Your task to perform on an android device: Go to sound settings Image 0: 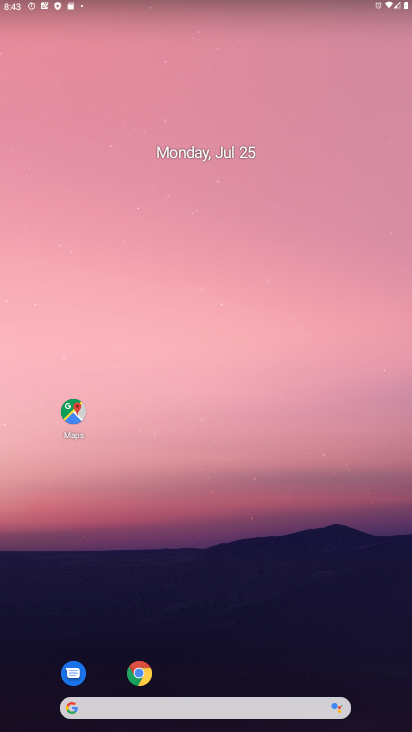
Step 0: drag from (326, 662) to (173, 24)
Your task to perform on an android device: Go to sound settings Image 1: 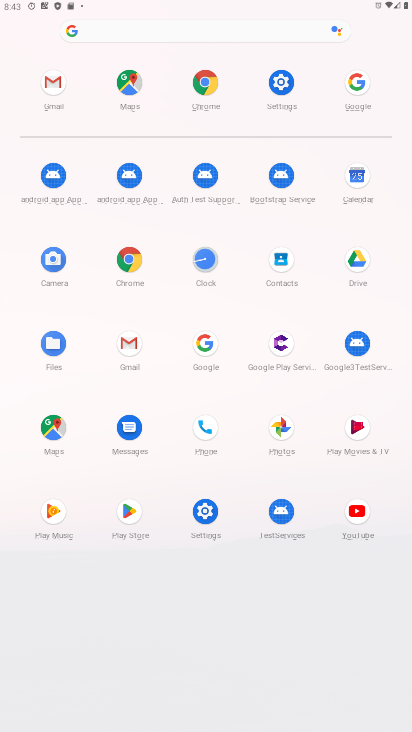
Step 1: click (205, 506)
Your task to perform on an android device: Go to sound settings Image 2: 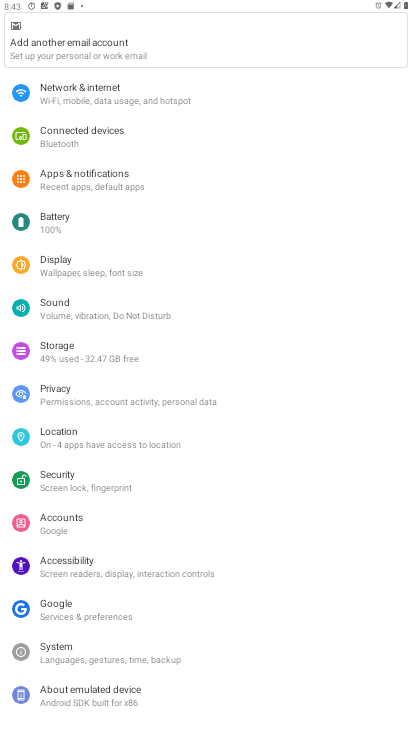
Step 2: click (62, 319)
Your task to perform on an android device: Go to sound settings Image 3: 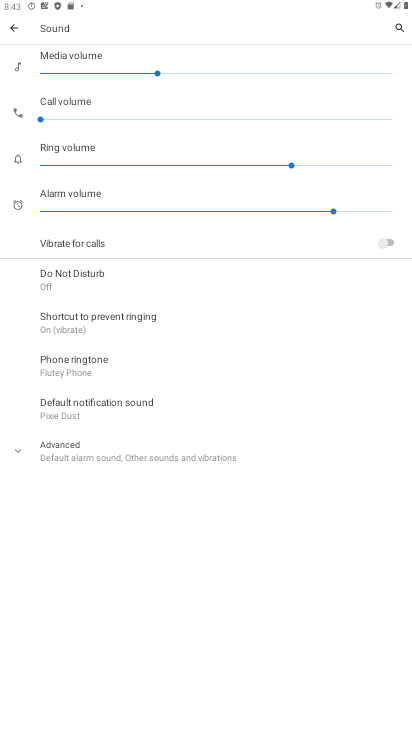
Step 3: task complete